Your task to perform on an android device: clear history in the chrome app Image 0: 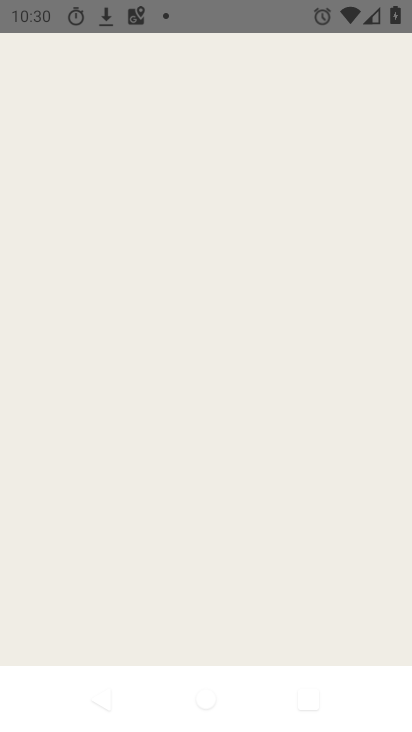
Step 0: press home button
Your task to perform on an android device: clear history in the chrome app Image 1: 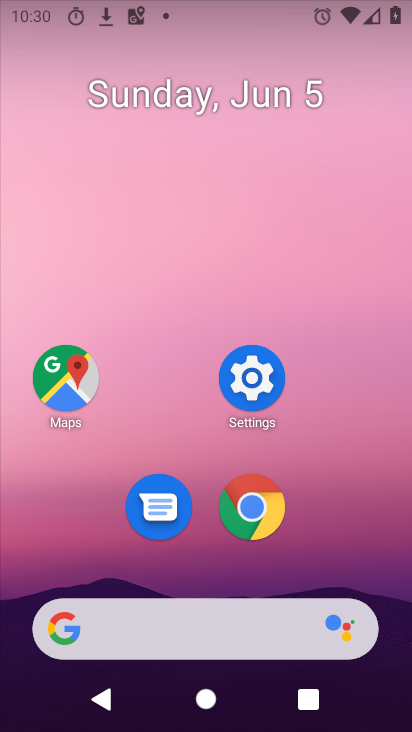
Step 1: drag from (167, 683) to (76, 267)
Your task to perform on an android device: clear history in the chrome app Image 2: 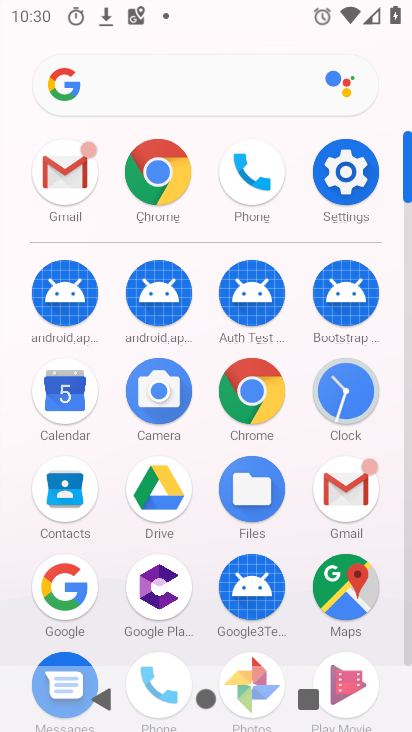
Step 2: click (109, 105)
Your task to perform on an android device: clear history in the chrome app Image 3: 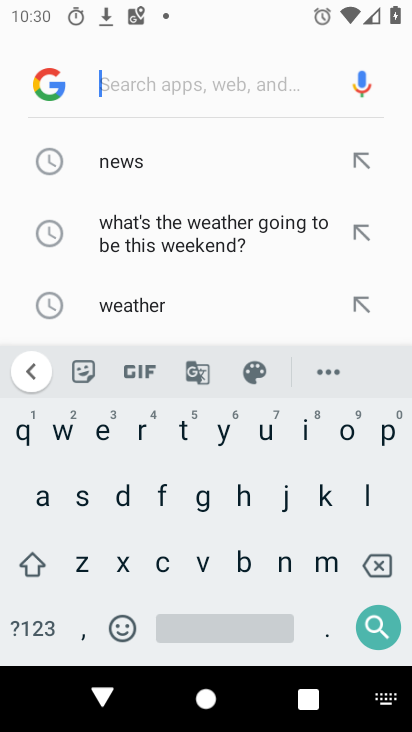
Step 3: press home button
Your task to perform on an android device: clear history in the chrome app Image 4: 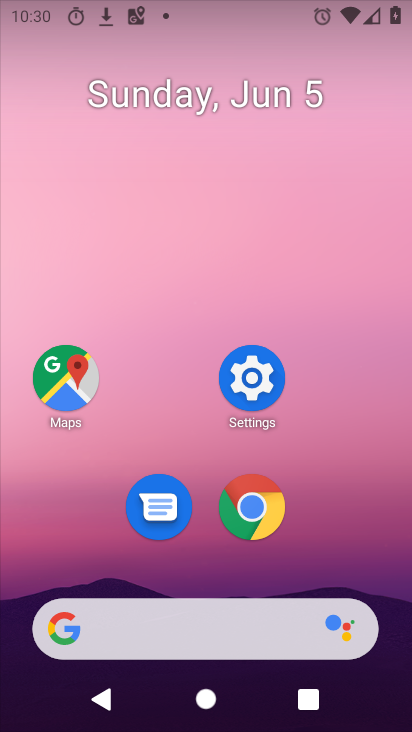
Step 4: drag from (282, 649) to (183, 149)
Your task to perform on an android device: clear history in the chrome app Image 5: 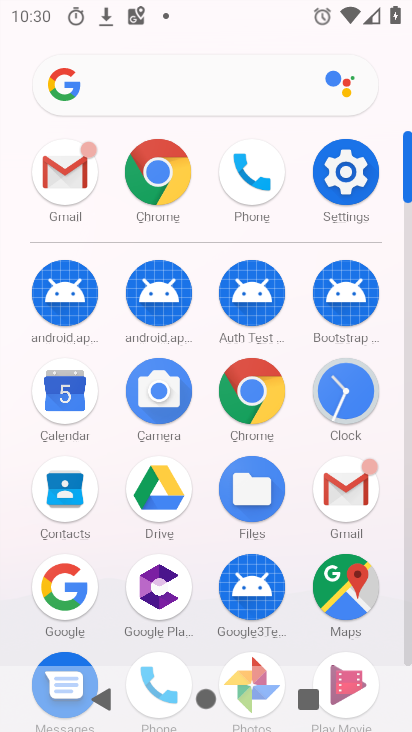
Step 5: click (159, 164)
Your task to perform on an android device: clear history in the chrome app Image 6: 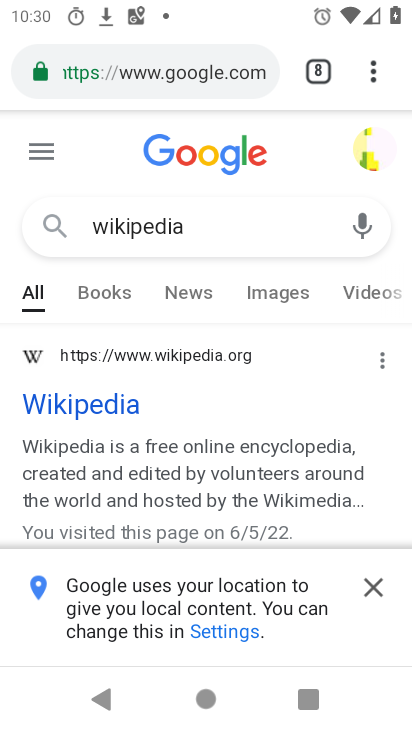
Step 6: click (353, 85)
Your task to perform on an android device: clear history in the chrome app Image 7: 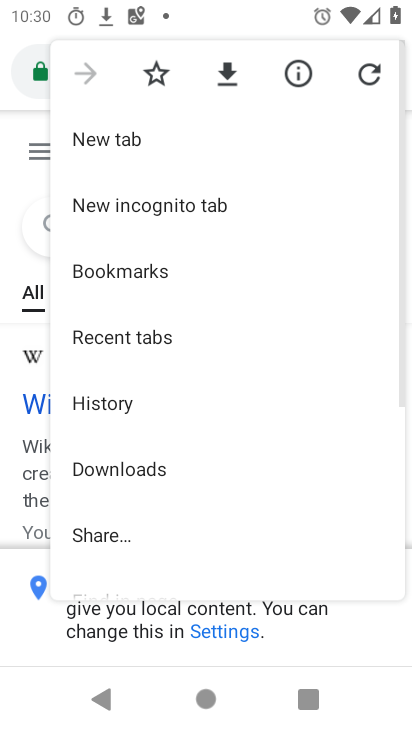
Step 7: click (113, 404)
Your task to perform on an android device: clear history in the chrome app Image 8: 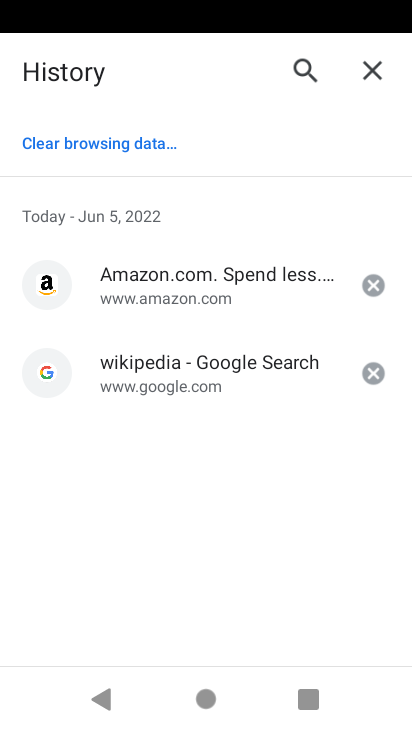
Step 8: click (83, 130)
Your task to perform on an android device: clear history in the chrome app Image 9: 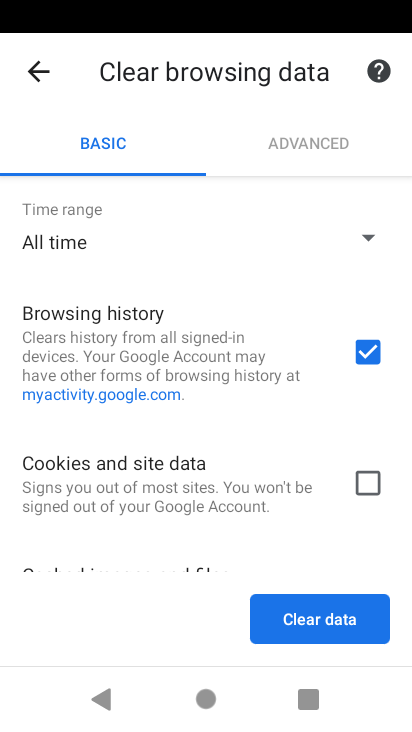
Step 9: click (302, 618)
Your task to perform on an android device: clear history in the chrome app Image 10: 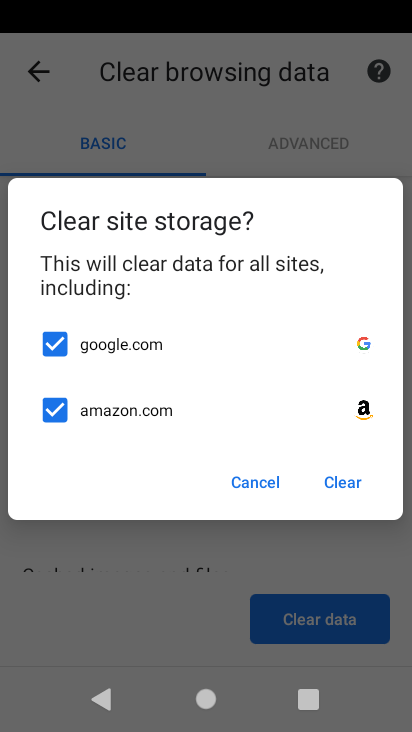
Step 10: click (328, 479)
Your task to perform on an android device: clear history in the chrome app Image 11: 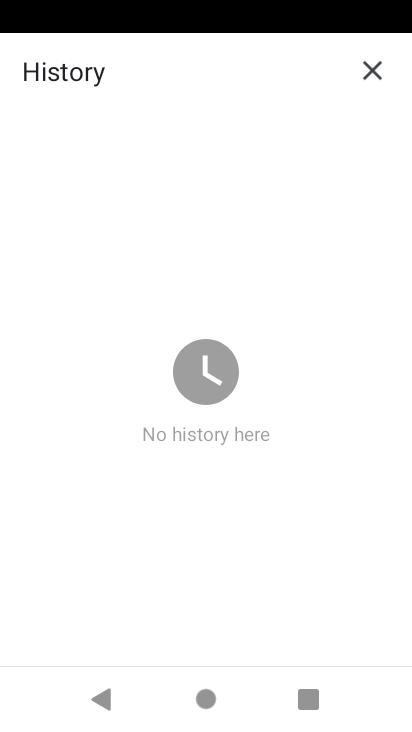
Step 11: task complete